Your task to perform on an android device: Open the calendar app, open the side menu, and click the "Day" option Image 0: 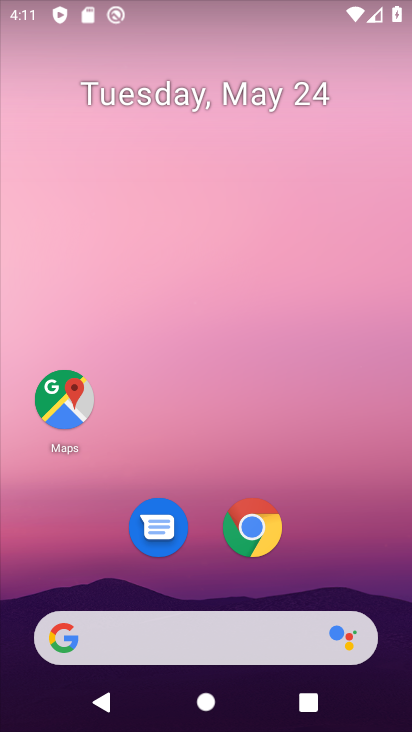
Step 0: drag from (62, 595) to (218, 124)
Your task to perform on an android device: Open the calendar app, open the side menu, and click the "Day" option Image 1: 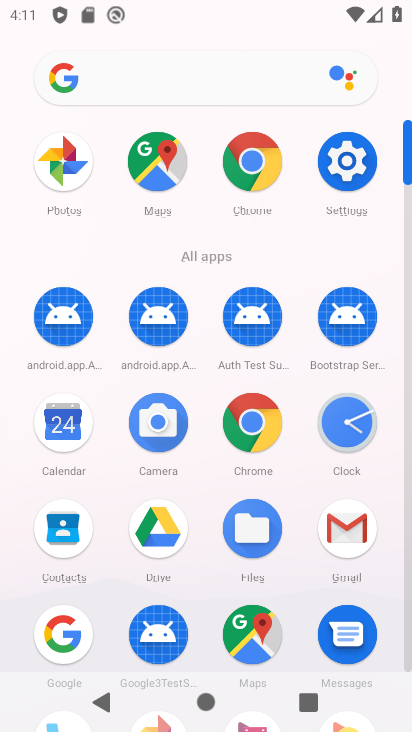
Step 1: click (67, 430)
Your task to perform on an android device: Open the calendar app, open the side menu, and click the "Day" option Image 2: 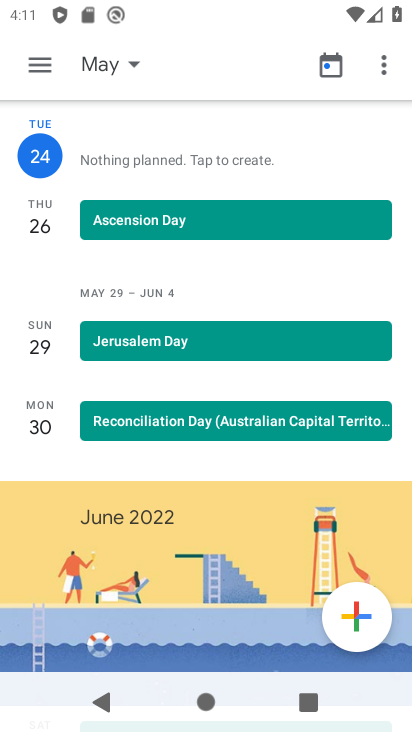
Step 2: click (44, 66)
Your task to perform on an android device: Open the calendar app, open the side menu, and click the "Day" option Image 3: 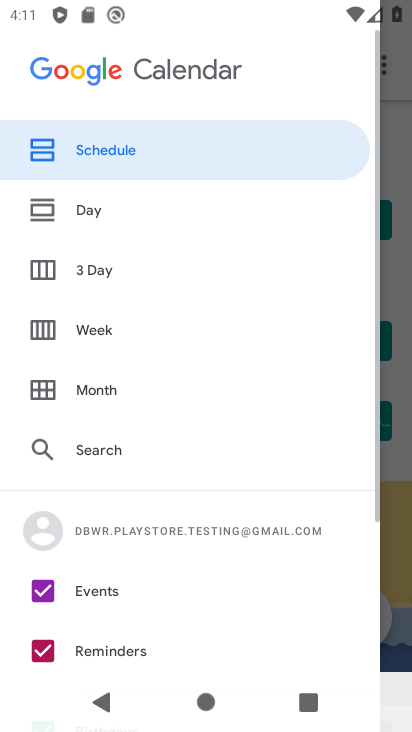
Step 3: click (130, 200)
Your task to perform on an android device: Open the calendar app, open the side menu, and click the "Day" option Image 4: 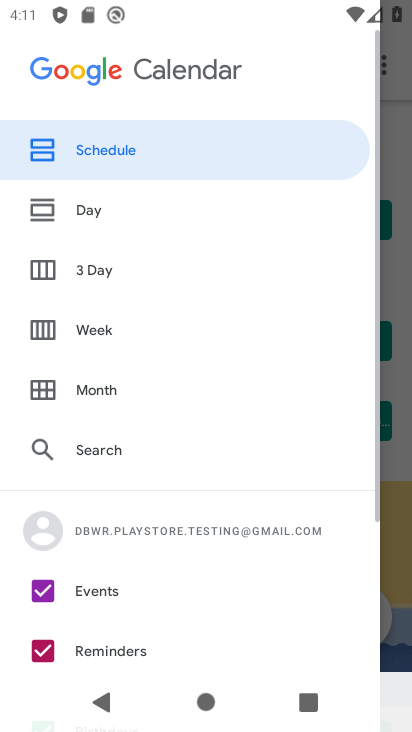
Step 4: click (145, 224)
Your task to perform on an android device: Open the calendar app, open the side menu, and click the "Day" option Image 5: 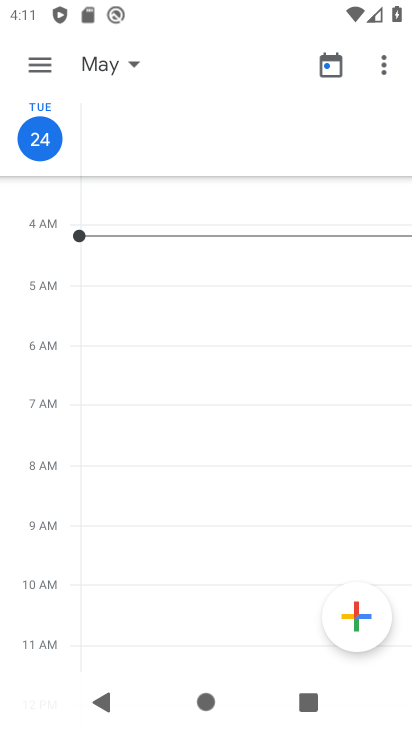
Step 5: task complete